Your task to perform on an android device: add a contact Image 0: 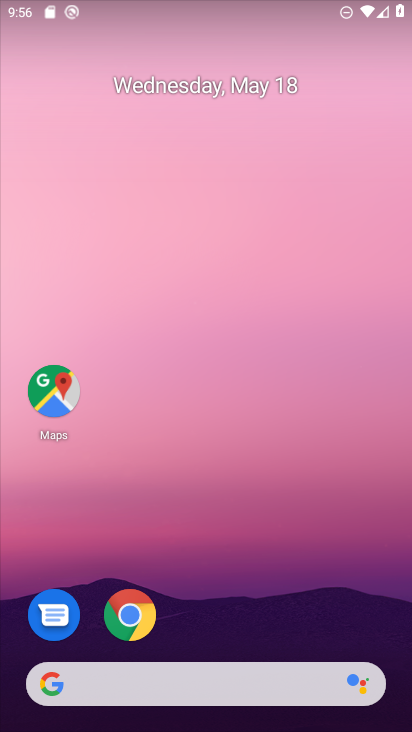
Step 0: drag from (254, 591) to (241, 92)
Your task to perform on an android device: add a contact Image 1: 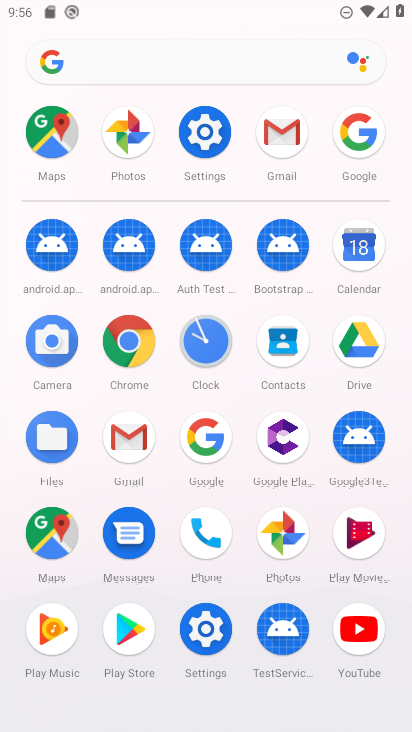
Step 1: click (287, 334)
Your task to perform on an android device: add a contact Image 2: 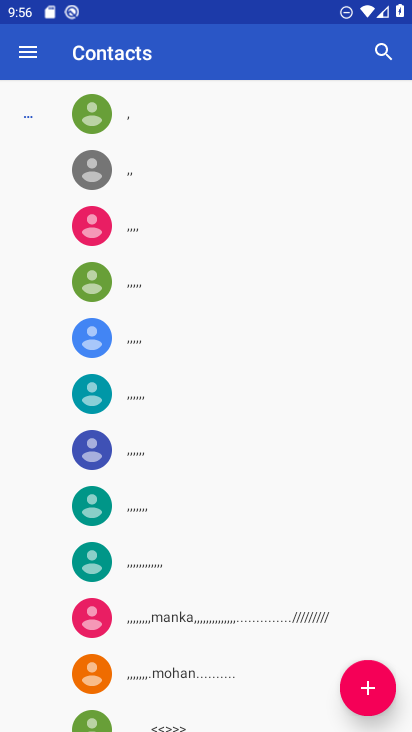
Step 2: click (369, 697)
Your task to perform on an android device: add a contact Image 3: 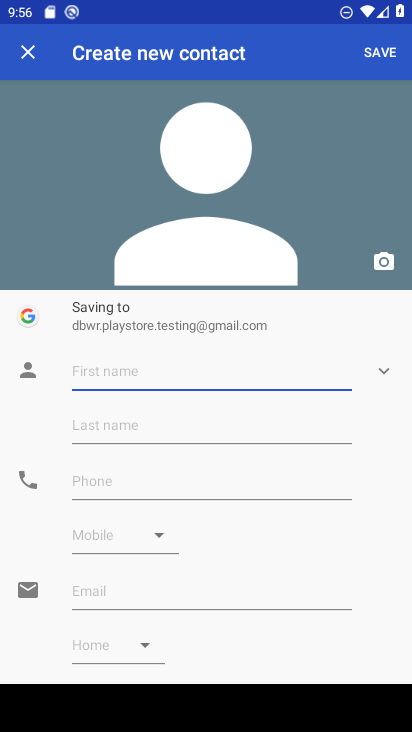
Step 3: type "jhgx"
Your task to perform on an android device: add a contact Image 4: 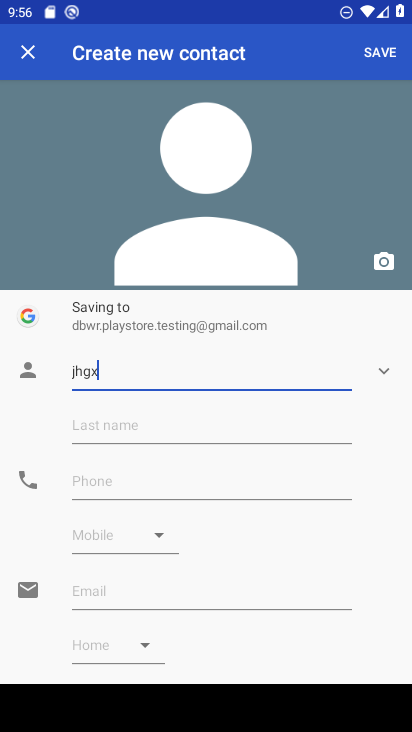
Step 4: click (382, 50)
Your task to perform on an android device: add a contact Image 5: 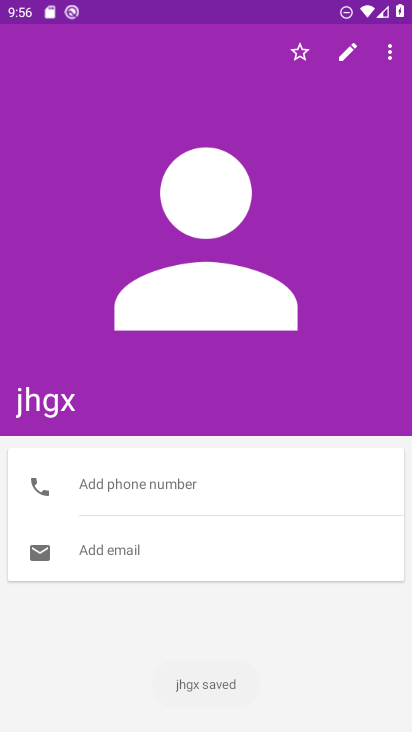
Step 5: task complete